Your task to perform on an android device: Go to eBay Image 0: 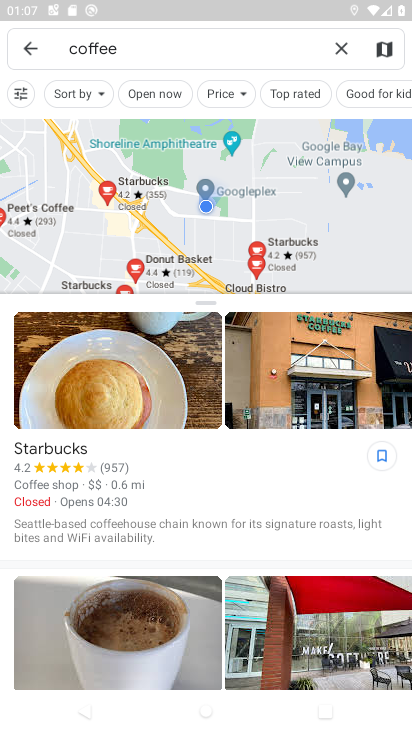
Step 0: press home button
Your task to perform on an android device: Go to eBay Image 1: 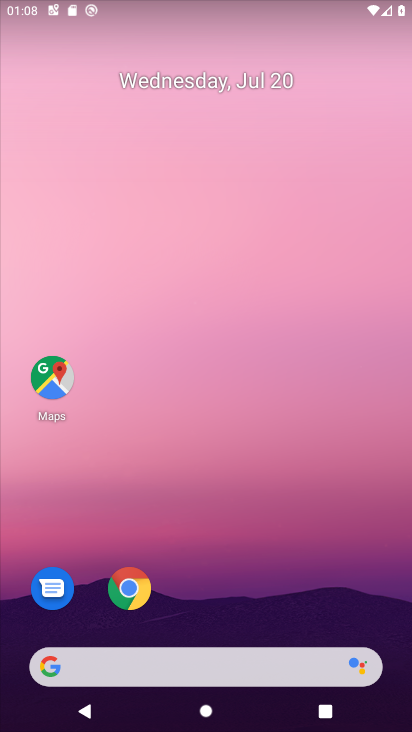
Step 1: drag from (304, 647) to (310, 316)
Your task to perform on an android device: Go to eBay Image 2: 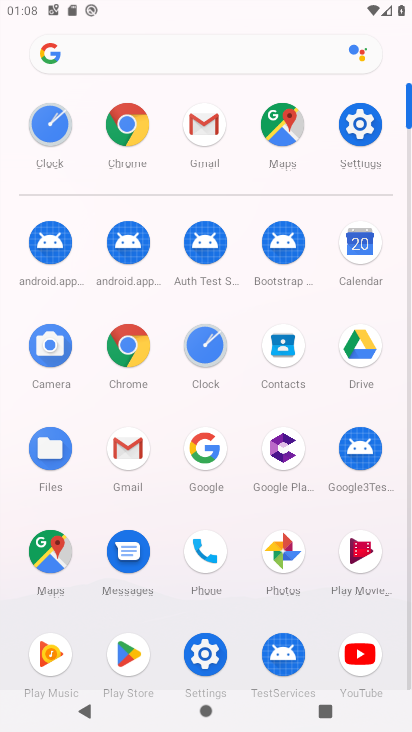
Step 2: click (109, 114)
Your task to perform on an android device: Go to eBay Image 3: 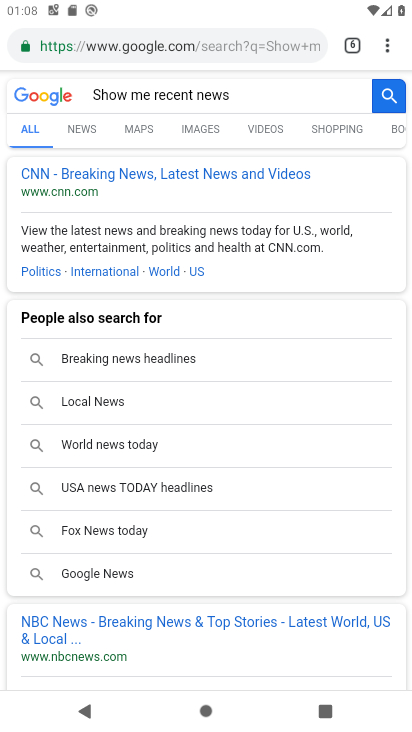
Step 3: click (395, 39)
Your task to perform on an android device: Go to eBay Image 4: 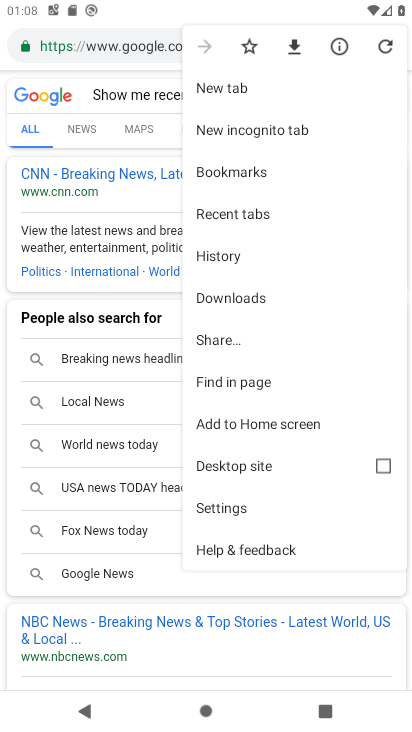
Step 4: click (231, 88)
Your task to perform on an android device: Go to eBay Image 5: 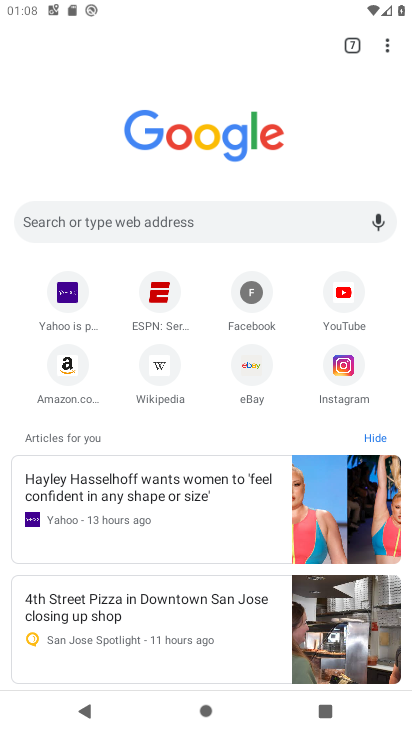
Step 5: click (248, 359)
Your task to perform on an android device: Go to eBay Image 6: 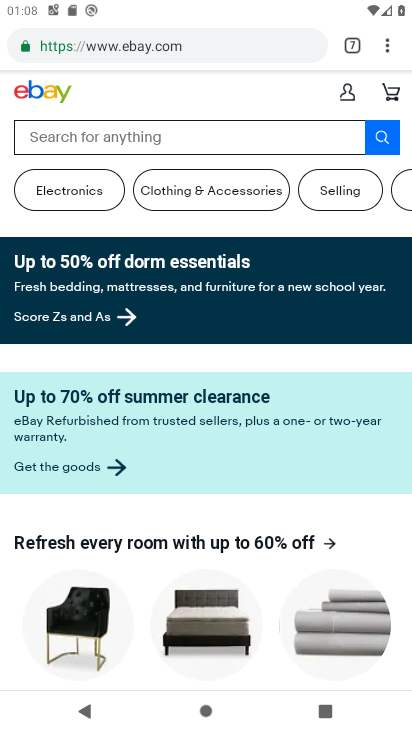
Step 6: task complete